Your task to perform on an android device: Clear the shopping cart on costco.com. Add "beats solo 3" to the cart on costco.com Image 0: 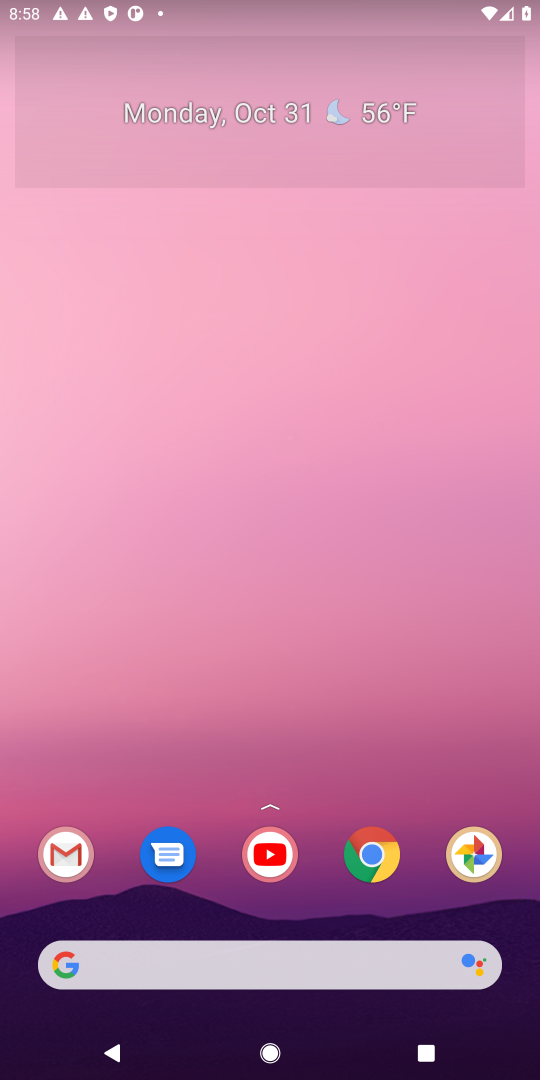
Step 0: click (305, 978)
Your task to perform on an android device: Clear the shopping cart on costco.com. Add "beats solo 3" to the cart on costco.com Image 1: 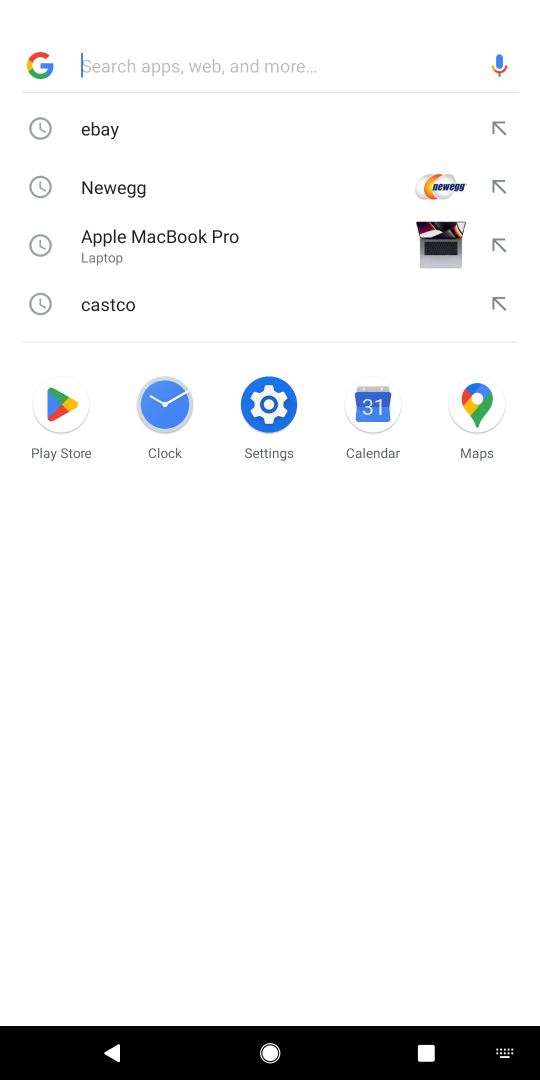
Step 1: type "costco"
Your task to perform on an android device: Clear the shopping cart on costco.com. Add "beats solo 3" to the cart on costco.com Image 2: 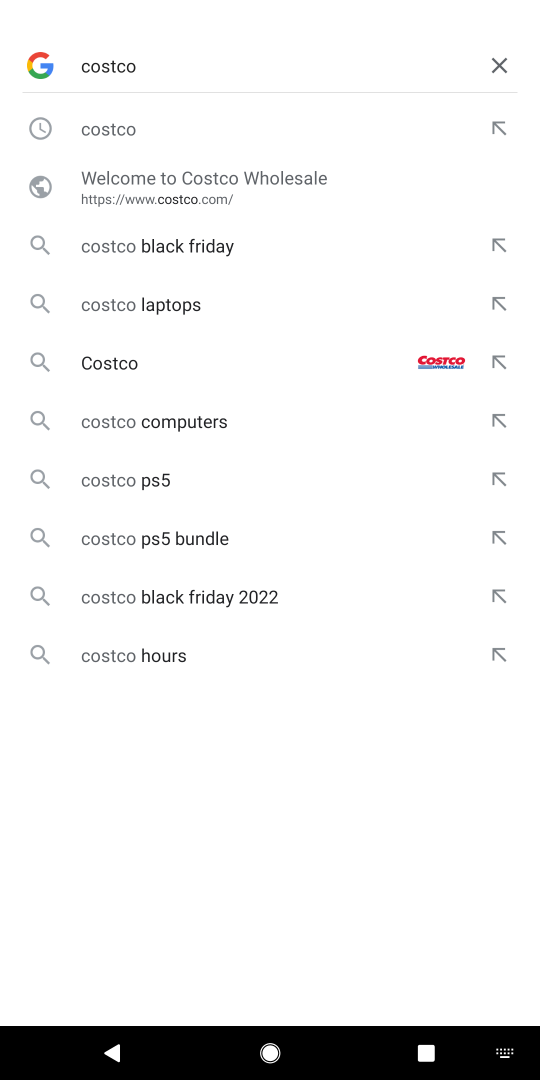
Step 2: click (181, 134)
Your task to perform on an android device: Clear the shopping cart on costco.com. Add "beats solo 3" to the cart on costco.com Image 3: 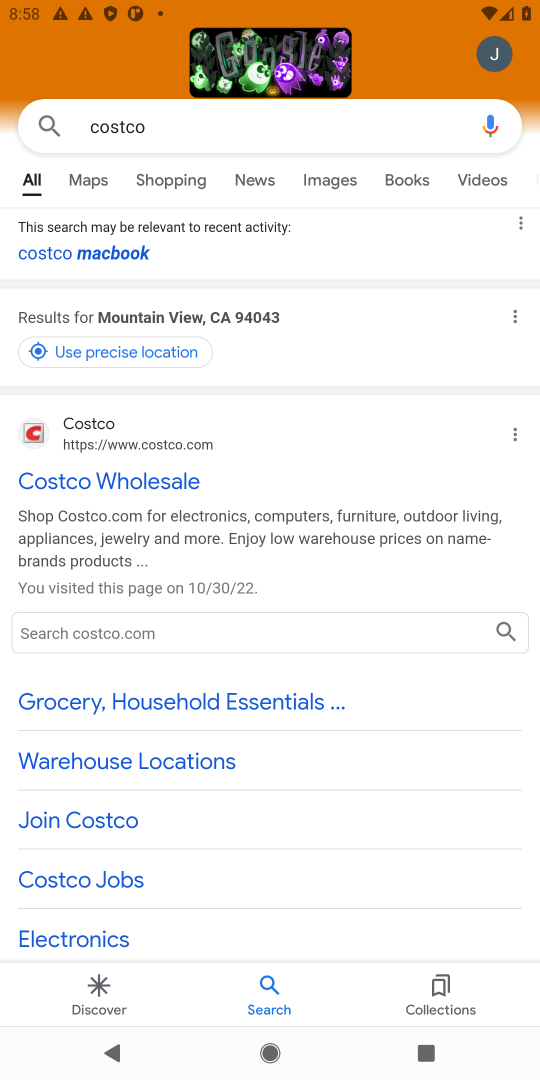
Step 3: click (57, 455)
Your task to perform on an android device: Clear the shopping cart on costco.com. Add "beats solo 3" to the cart on costco.com Image 4: 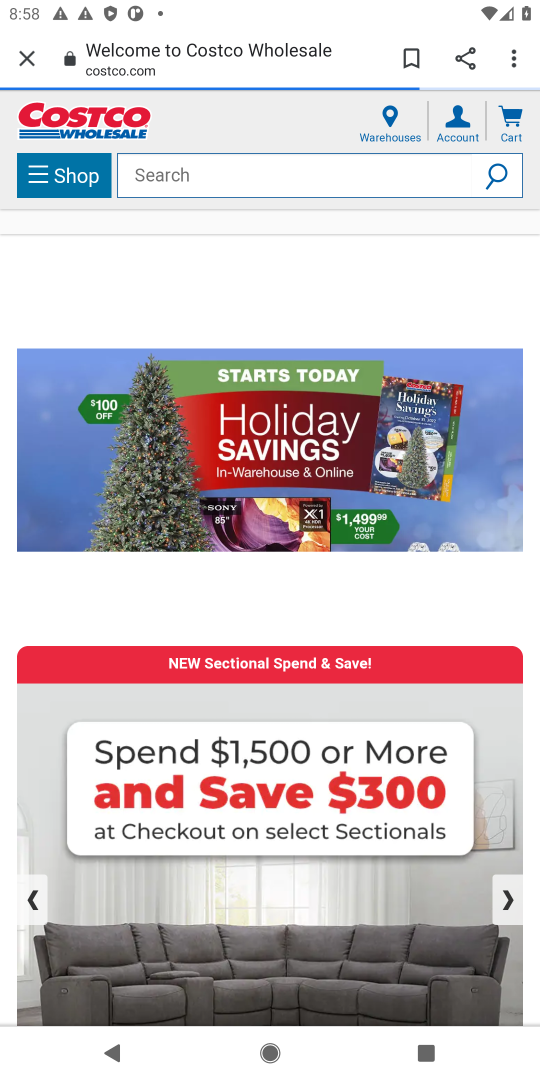
Step 4: click (289, 179)
Your task to perform on an android device: Clear the shopping cart on costco.com. Add "beats solo 3" to the cart on costco.com Image 5: 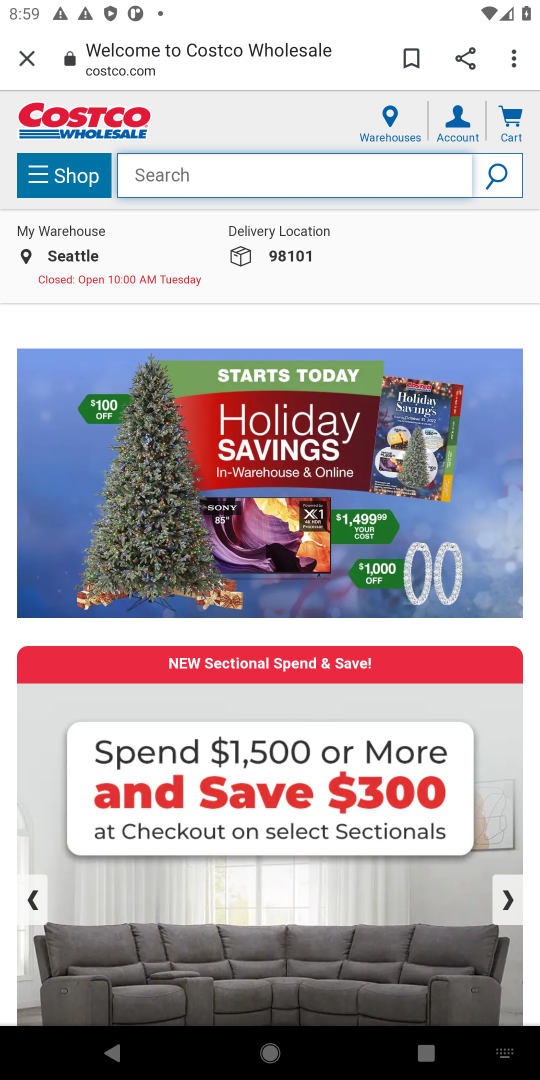
Step 5: type "beats solo3"
Your task to perform on an android device: Clear the shopping cart on costco.com. Add "beats solo 3" to the cart on costco.com Image 6: 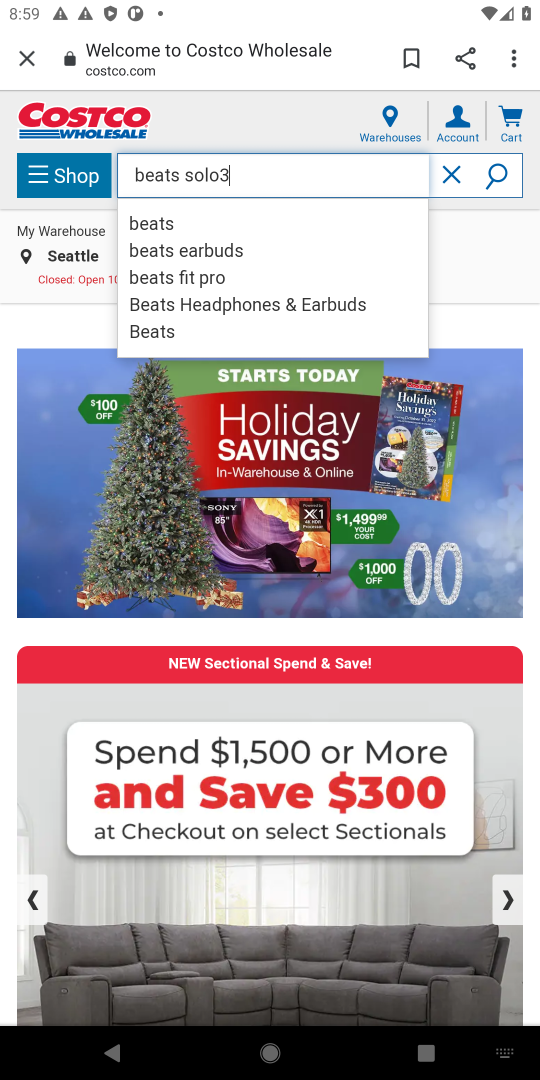
Step 6: click (488, 181)
Your task to perform on an android device: Clear the shopping cart on costco.com. Add "beats solo 3" to the cart on costco.com Image 7: 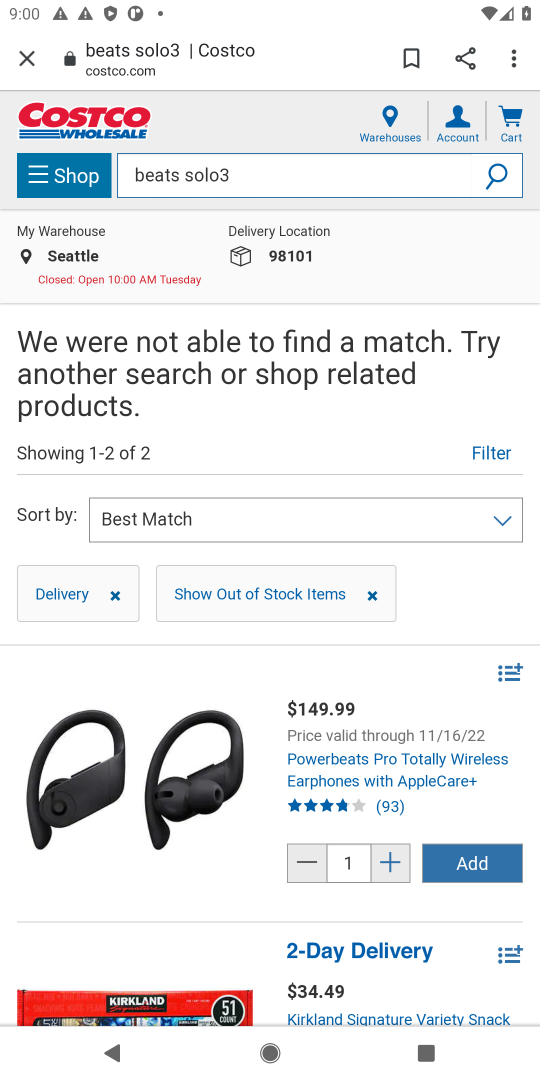
Step 7: click (451, 853)
Your task to perform on an android device: Clear the shopping cart on costco.com. Add "beats solo 3" to the cart on costco.com Image 8: 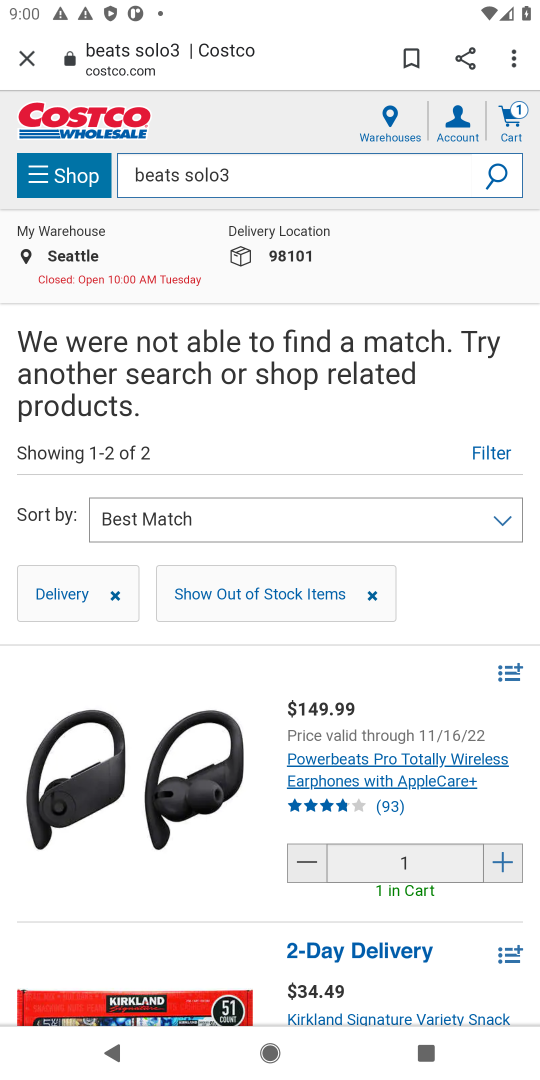
Step 8: click (450, 867)
Your task to perform on an android device: Clear the shopping cart on costco.com. Add "beats solo 3" to the cart on costco.com Image 9: 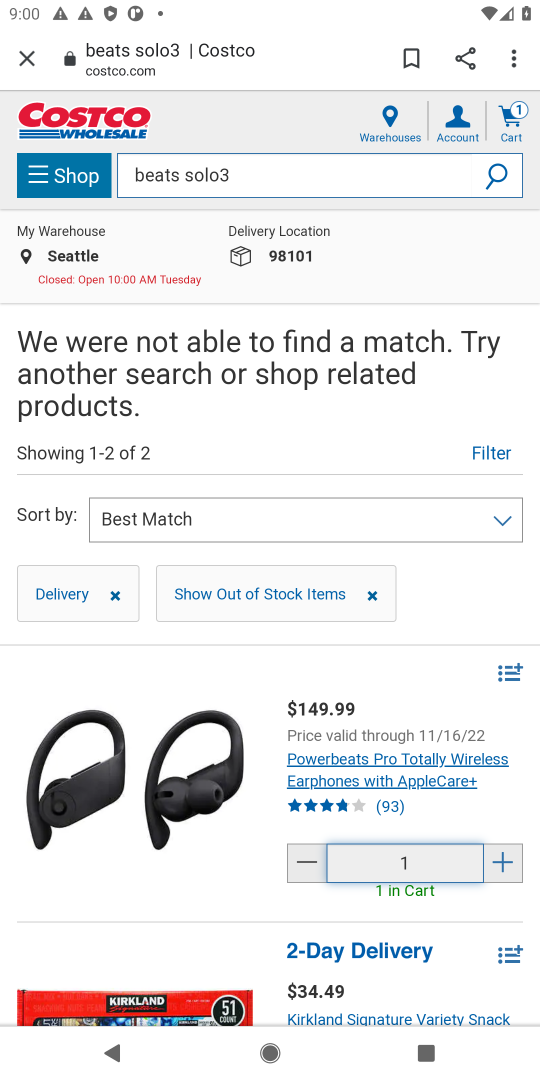
Step 9: task complete